Your task to perform on an android device: Open Maps and search for coffee Image 0: 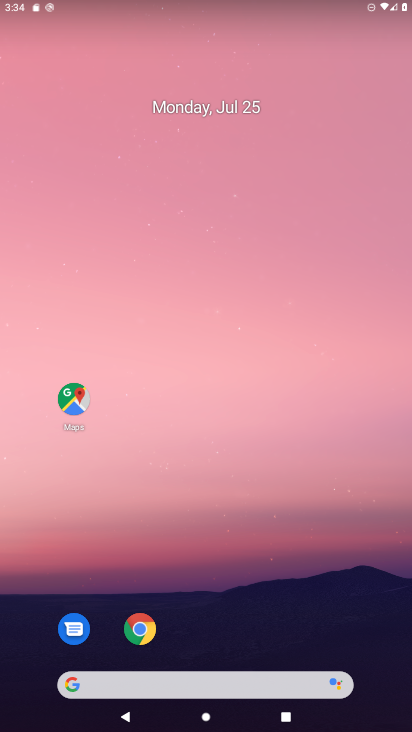
Step 0: click (70, 400)
Your task to perform on an android device: Open Maps and search for coffee Image 1: 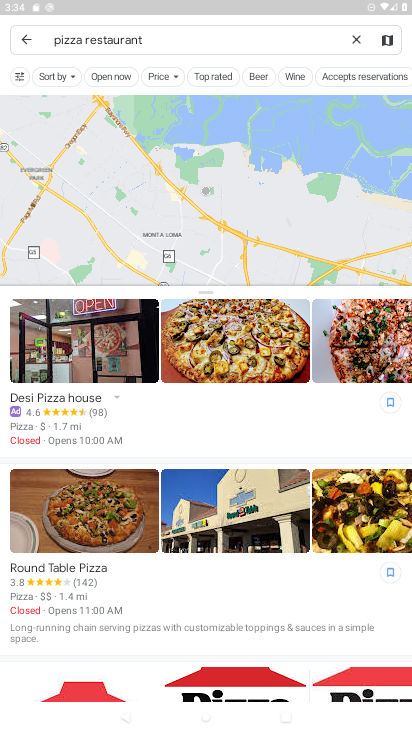
Step 1: click (356, 42)
Your task to perform on an android device: Open Maps and search for coffee Image 2: 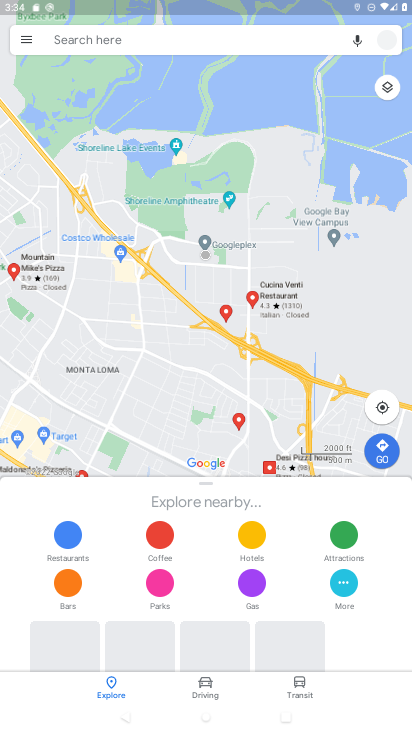
Step 2: click (292, 41)
Your task to perform on an android device: Open Maps and search for coffee Image 3: 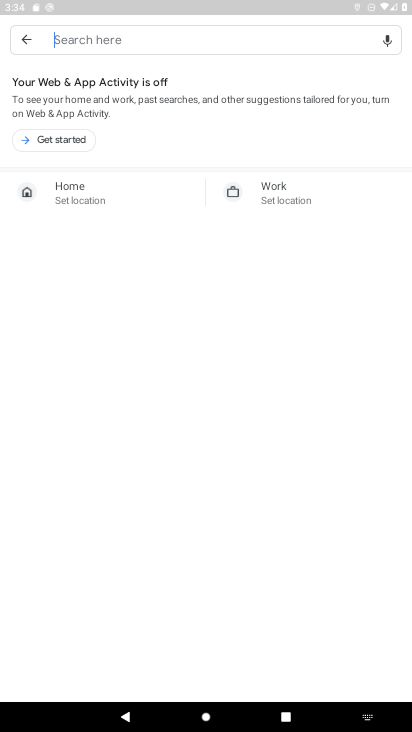
Step 3: type "coffee"
Your task to perform on an android device: Open Maps and search for coffee Image 4: 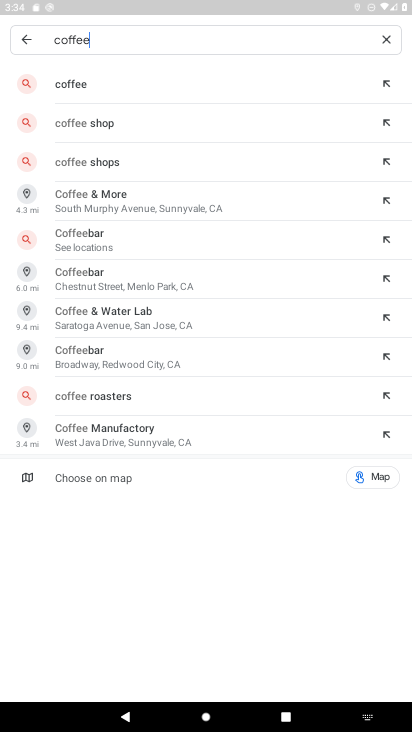
Step 4: click (67, 82)
Your task to perform on an android device: Open Maps and search for coffee Image 5: 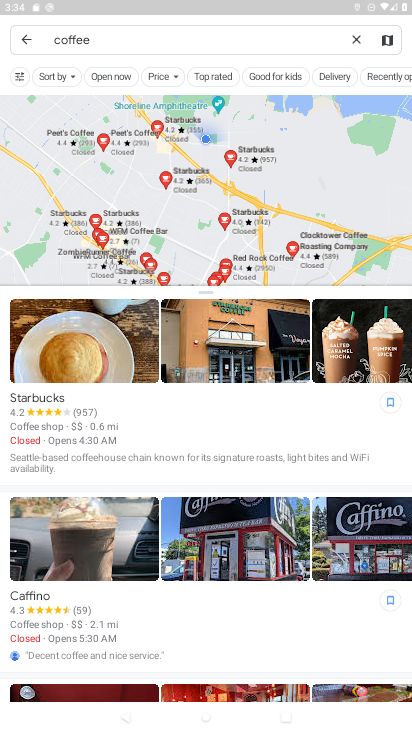
Step 5: task complete